Your task to perform on an android device: Open Yahoo.com Image 0: 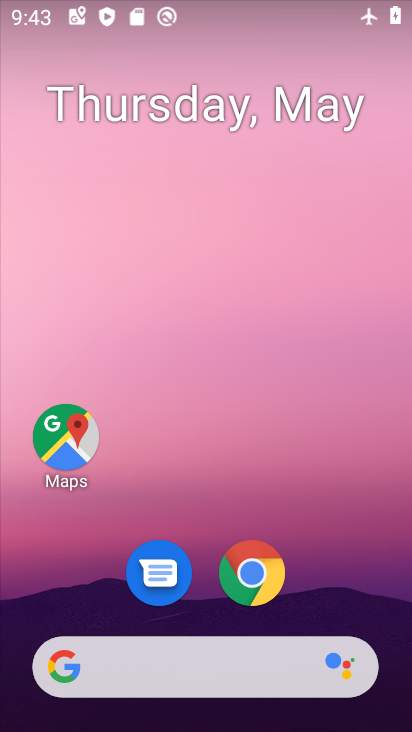
Step 0: click (274, 593)
Your task to perform on an android device: Open Yahoo.com Image 1: 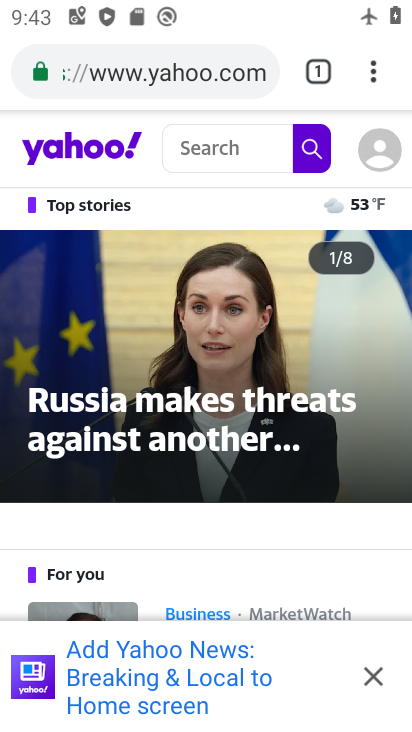
Step 1: task complete